Your task to perform on an android device: Open Google Chrome and open the bookmarks view Image 0: 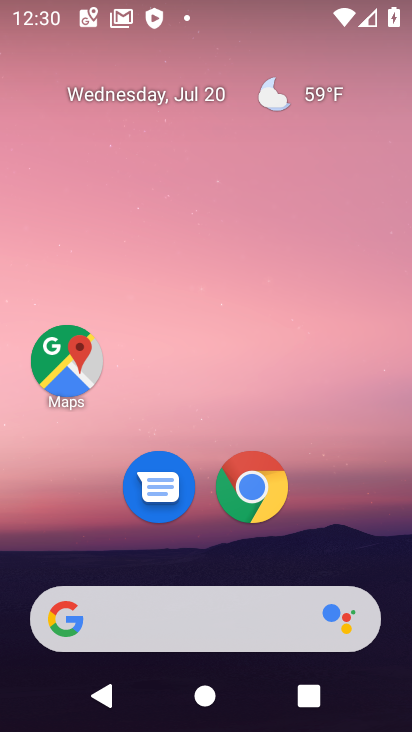
Step 0: click (236, 488)
Your task to perform on an android device: Open Google Chrome and open the bookmarks view Image 1: 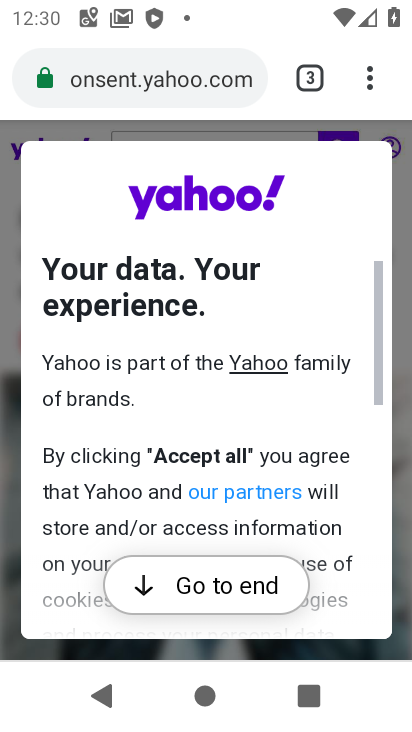
Step 1: task complete